Your task to perform on an android device: open a new tab in the chrome app Image 0: 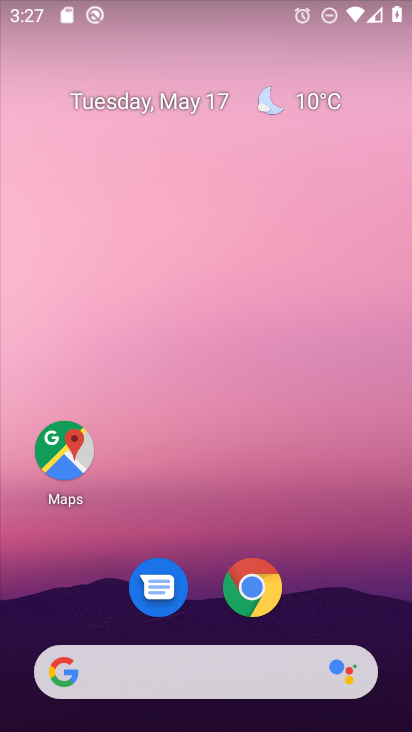
Step 0: drag from (327, 571) to (221, 33)
Your task to perform on an android device: open a new tab in the chrome app Image 1: 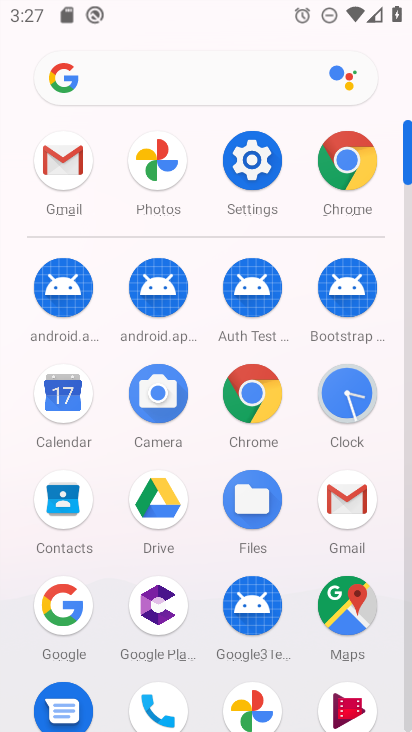
Step 1: drag from (12, 567) to (23, 210)
Your task to perform on an android device: open a new tab in the chrome app Image 2: 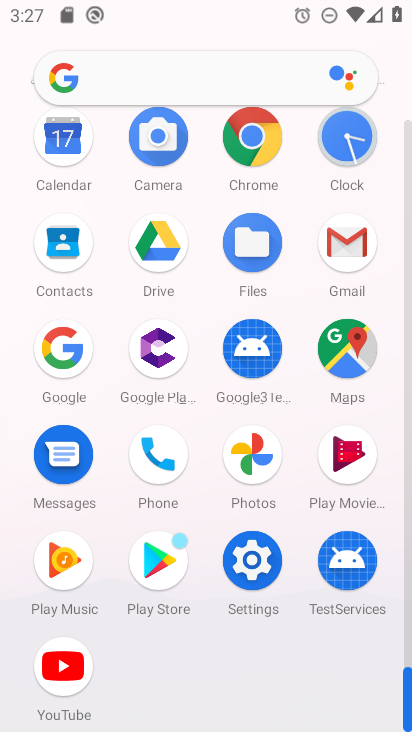
Step 2: drag from (15, 459) to (12, 180)
Your task to perform on an android device: open a new tab in the chrome app Image 3: 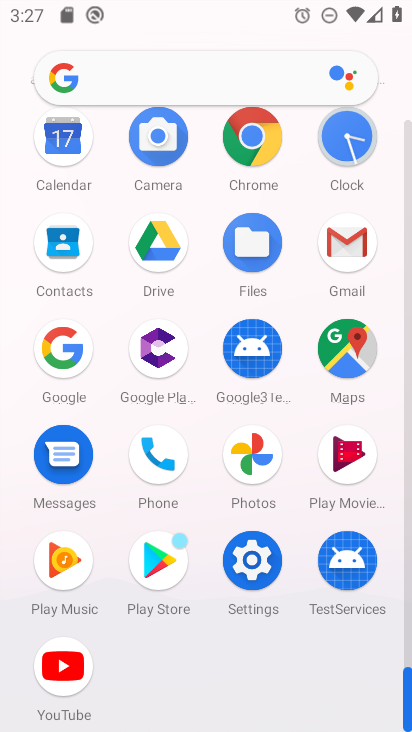
Step 3: click (253, 128)
Your task to perform on an android device: open a new tab in the chrome app Image 4: 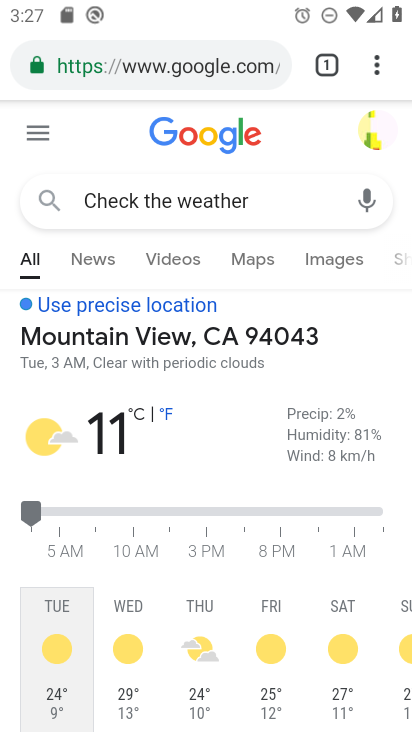
Step 4: task complete